Your task to perform on an android device: create a new album in the google photos Image 0: 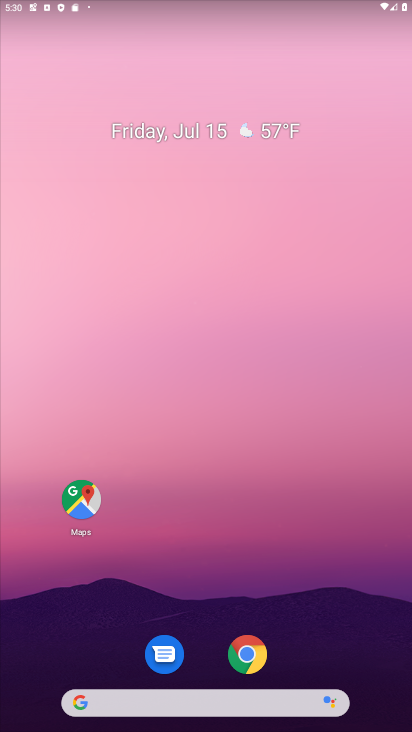
Step 0: drag from (201, 643) to (231, 171)
Your task to perform on an android device: create a new album in the google photos Image 1: 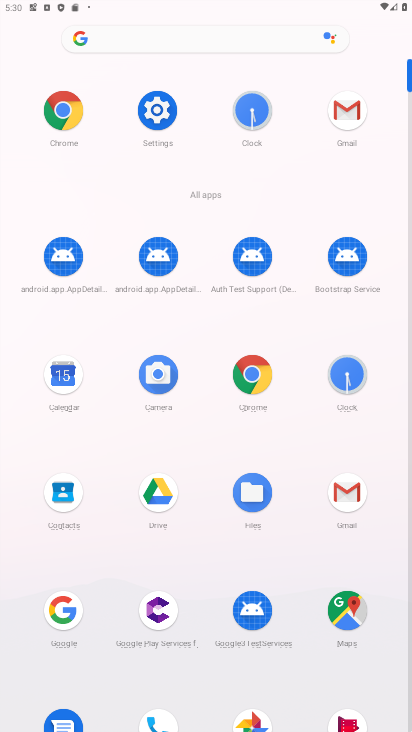
Step 1: click (238, 718)
Your task to perform on an android device: create a new album in the google photos Image 2: 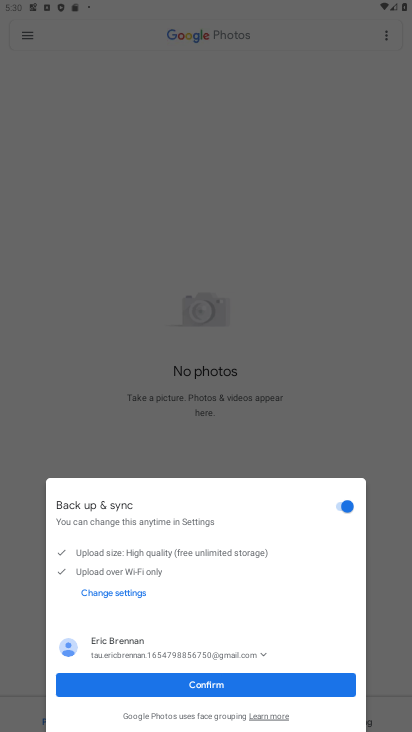
Step 2: click (255, 688)
Your task to perform on an android device: create a new album in the google photos Image 3: 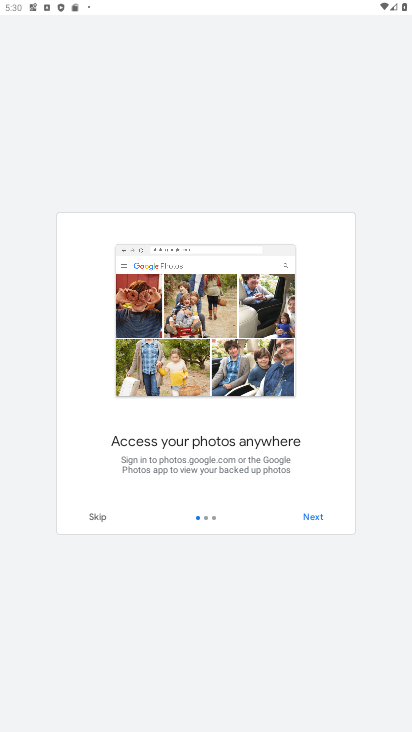
Step 3: click (313, 513)
Your task to perform on an android device: create a new album in the google photos Image 4: 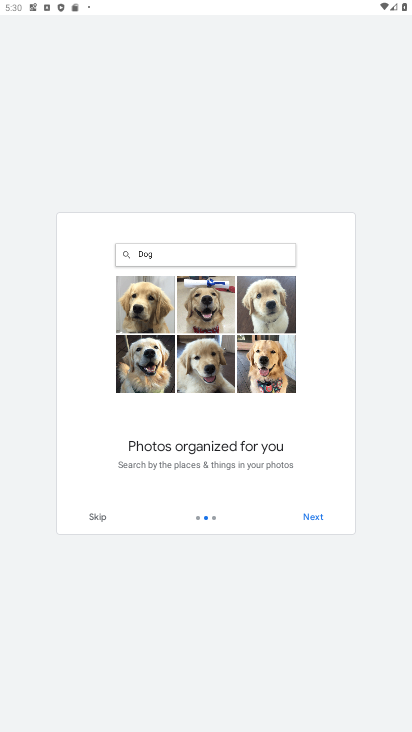
Step 4: click (313, 507)
Your task to perform on an android device: create a new album in the google photos Image 5: 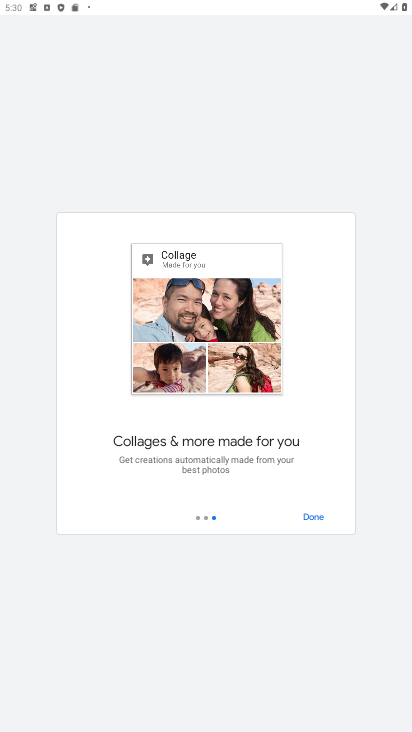
Step 5: click (307, 517)
Your task to perform on an android device: create a new album in the google photos Image 6: 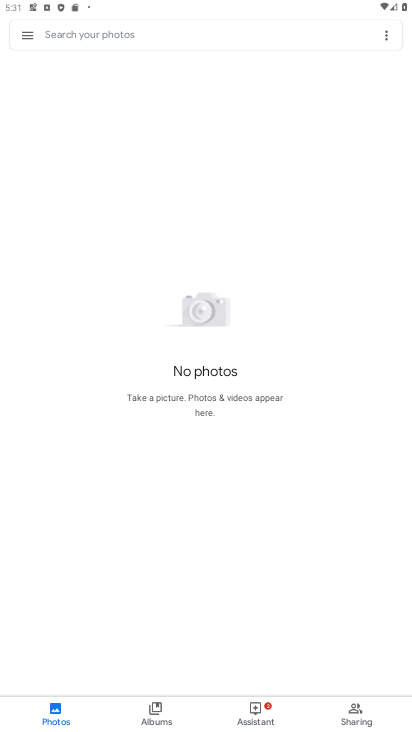
Step 6: task complete